Your task to perform on an android device: change timer sound Image 0: 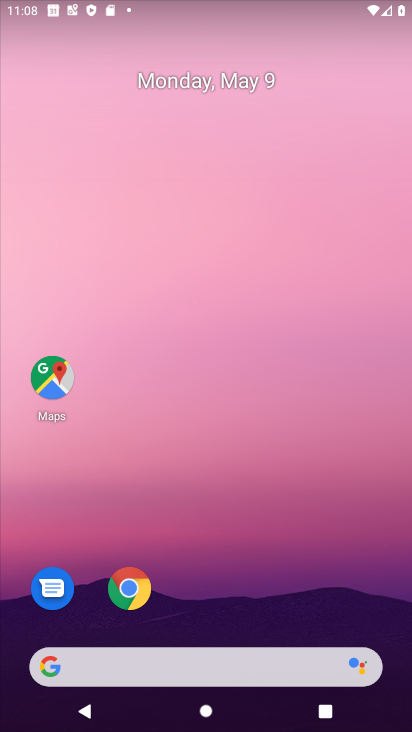
Step 0: drag from (181, 630) to (270, 14)
Your task to perform on an android device: change timer sound Image 1: 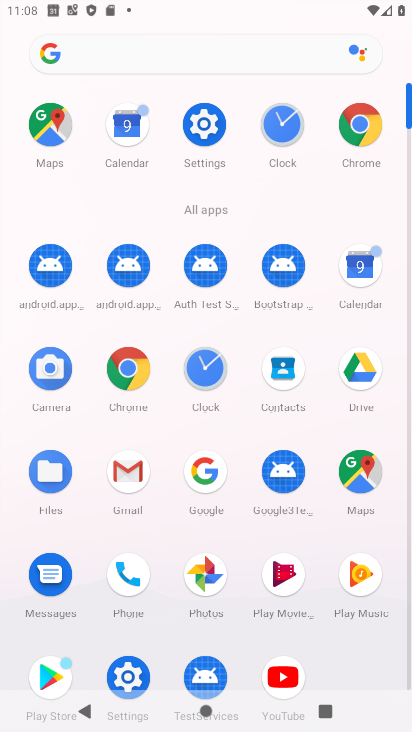
Step 1: click (213, 363)
Your task to perform on an android device: change timer sound Image 2: 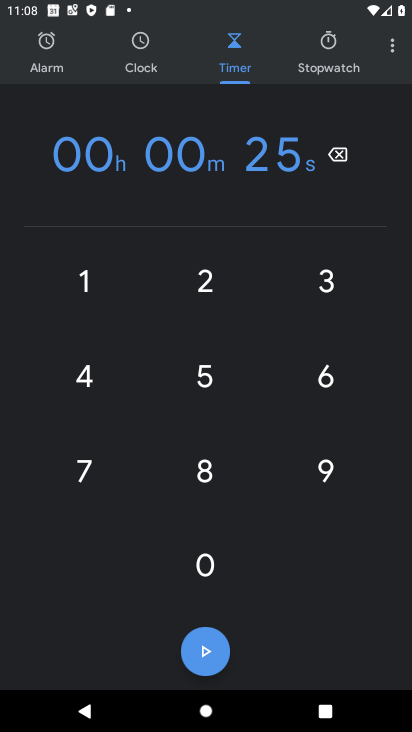
Step 2: click (390, 34)
Your task to perform on an android device: change timer sound Image 3: 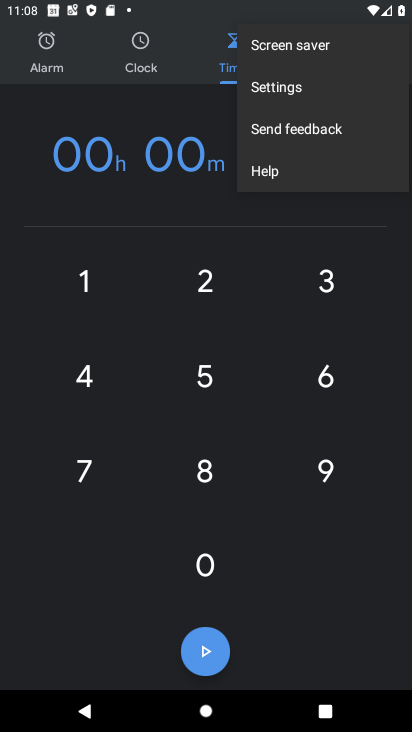
Step 3: click (282, 83)
Your task to perform on an android device: change timer sound Image 4: 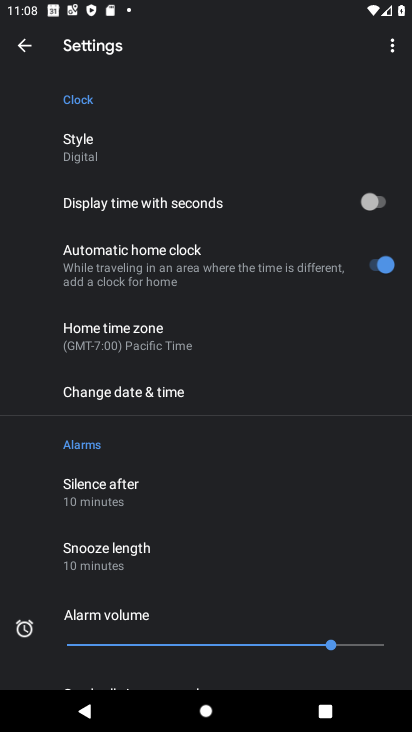
Step 4: drag from (181, 457) to (143, 100)
Your task to perform on an android device: change timer sound Image 5: 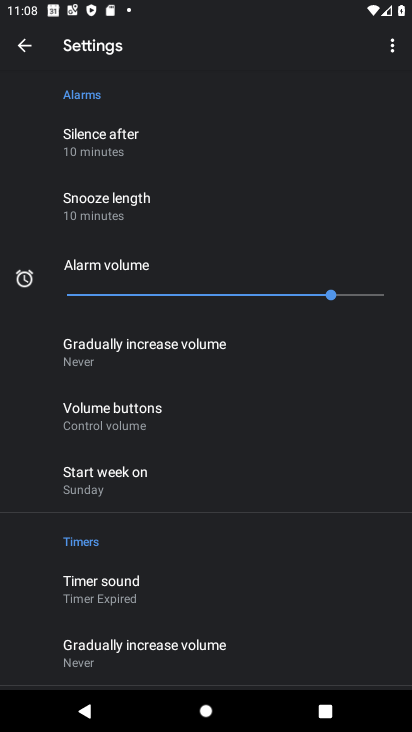
Step 5: click (135, 568)
Your task to perform on an android device: change timer sound Image 6: 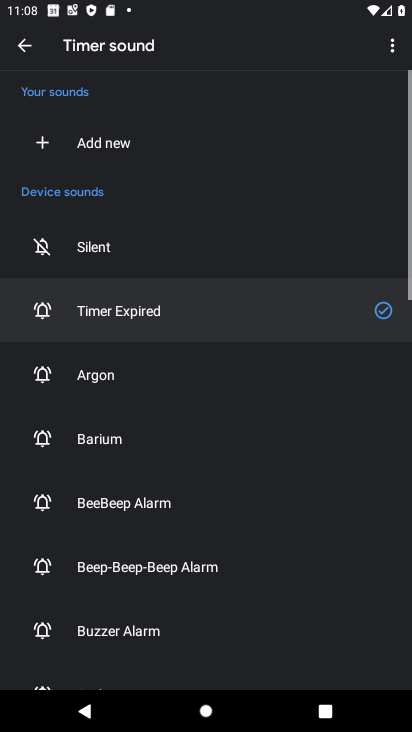
Step 6: click (148, 373)
Your task to perform on an android device: change timer sound Image 7: 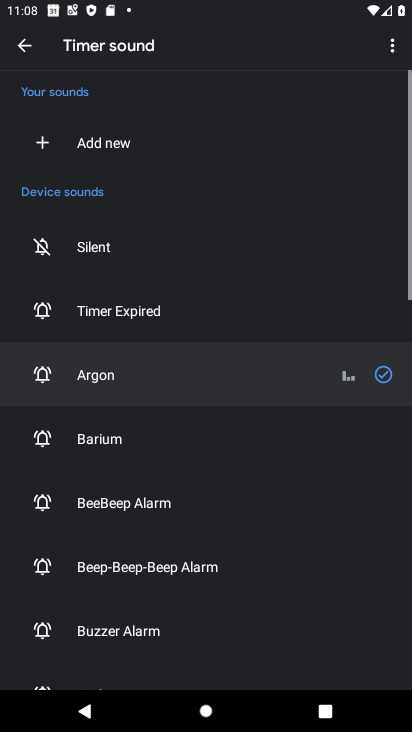
Step 7: task complete